Your task to perform on an android device: turn off translation in the chrome app Image 0: 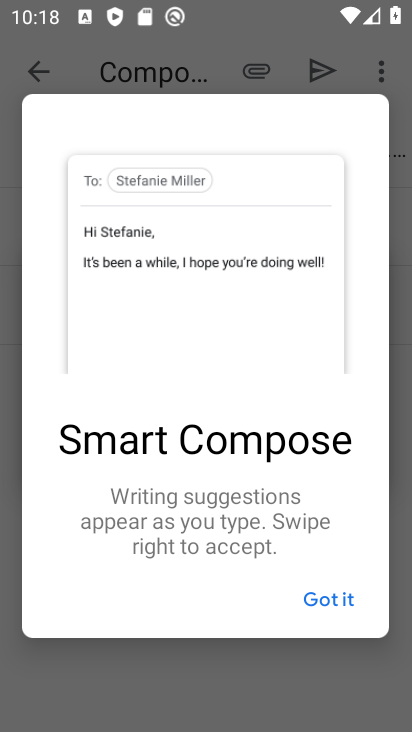
Step 0: press home button
Your task to perform on an android device: turn off translation in the chrome app Image 1: 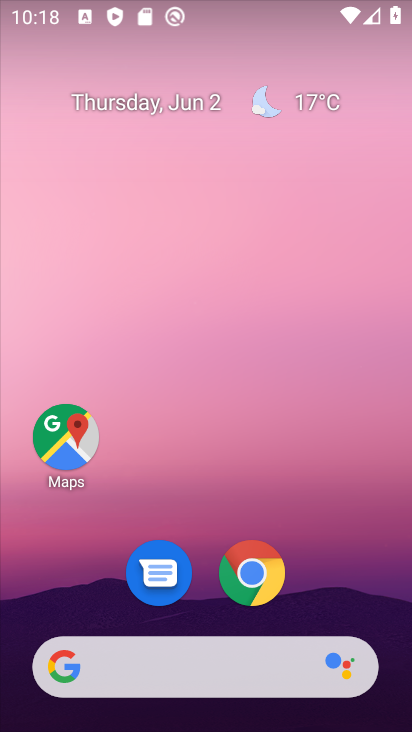
Step 1: drag from (346, 550) to (197, 2)
Your task to perform on an android device: turn off translation in the chrome app Image 2: 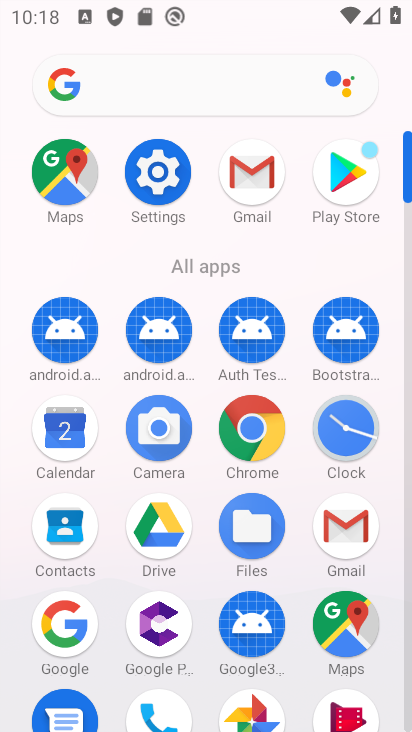
Step 2: click (245, 444)
Your task to perform on an android device: turn off translation in the chrome app Image 3: 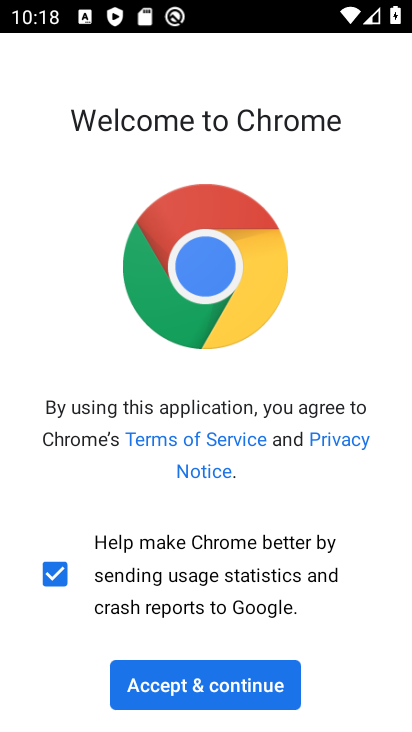
Step 3: click (251, 693)
Your task to perform on an android device: turn off translation in the chrome app Image 4: 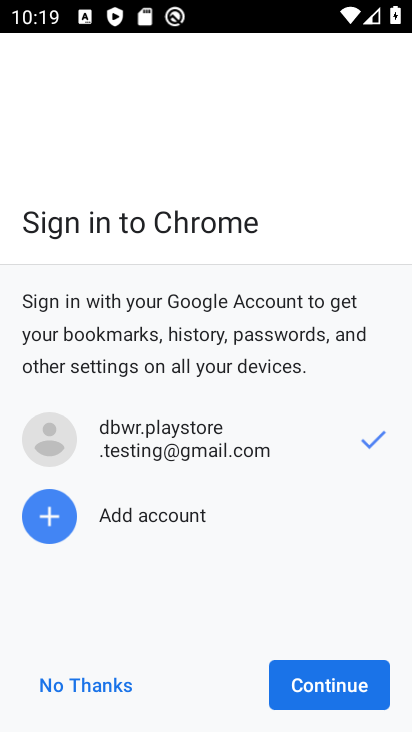
Step 4: click (96, 683)
Your task to perform on an android device: turn off translation in the chrome app Image 5: 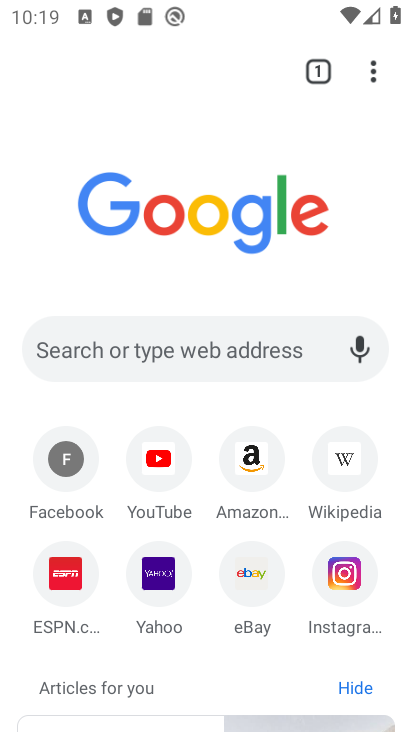
Step 5: drag from (378, 59) to (154, 625)
Your task to perform on an android device: turn off translation in the chrome app Image 6: 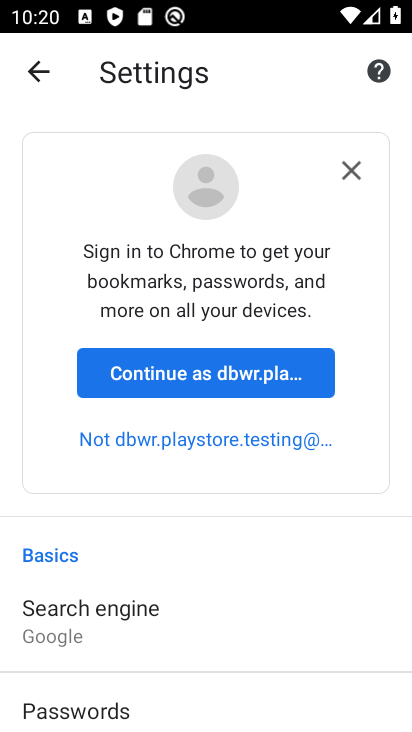
Step 6: drag from (156, 642) to (147, 194)
Your task to perform on an android device: turn off translation in the chrome app Image 7: 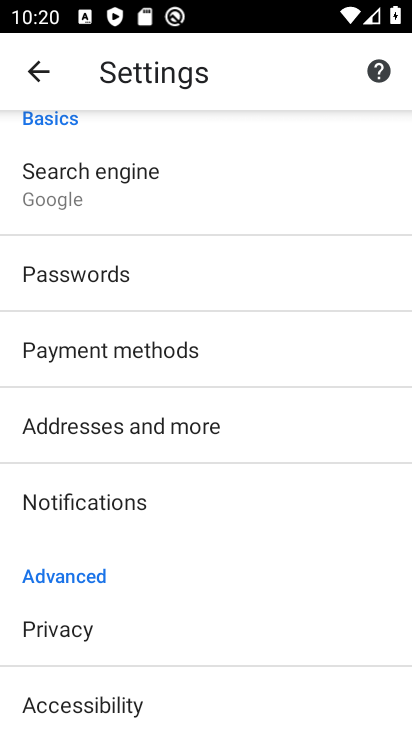
Step 7: drag from (195, 471) to (183, 119)
Your task to perform on an android device: turn off translation in the chrome app Image 8: 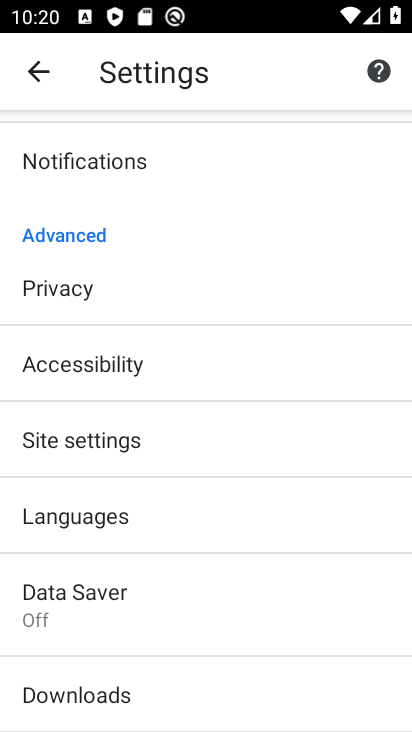
Step 8: click (84, 519)
Your task to perform on an android device: turn off translation in the chrome app Image 9: 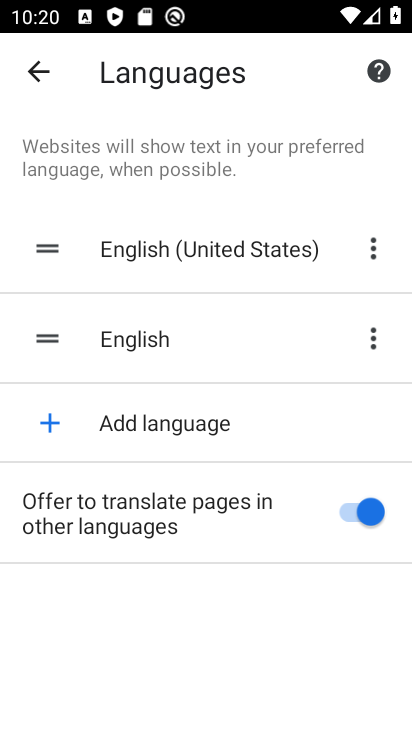
Step 9: click (357, 517)
Your task to perform on an android device: turn off translation in the chrome app Image 10: 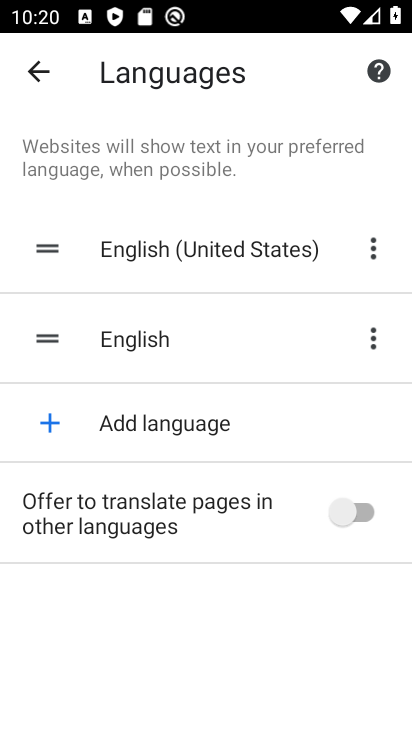
Step 10: task complete